Your task to perform on an android device: open app "ColorNote Notepad Notes" (install if not already installed) Image 0: 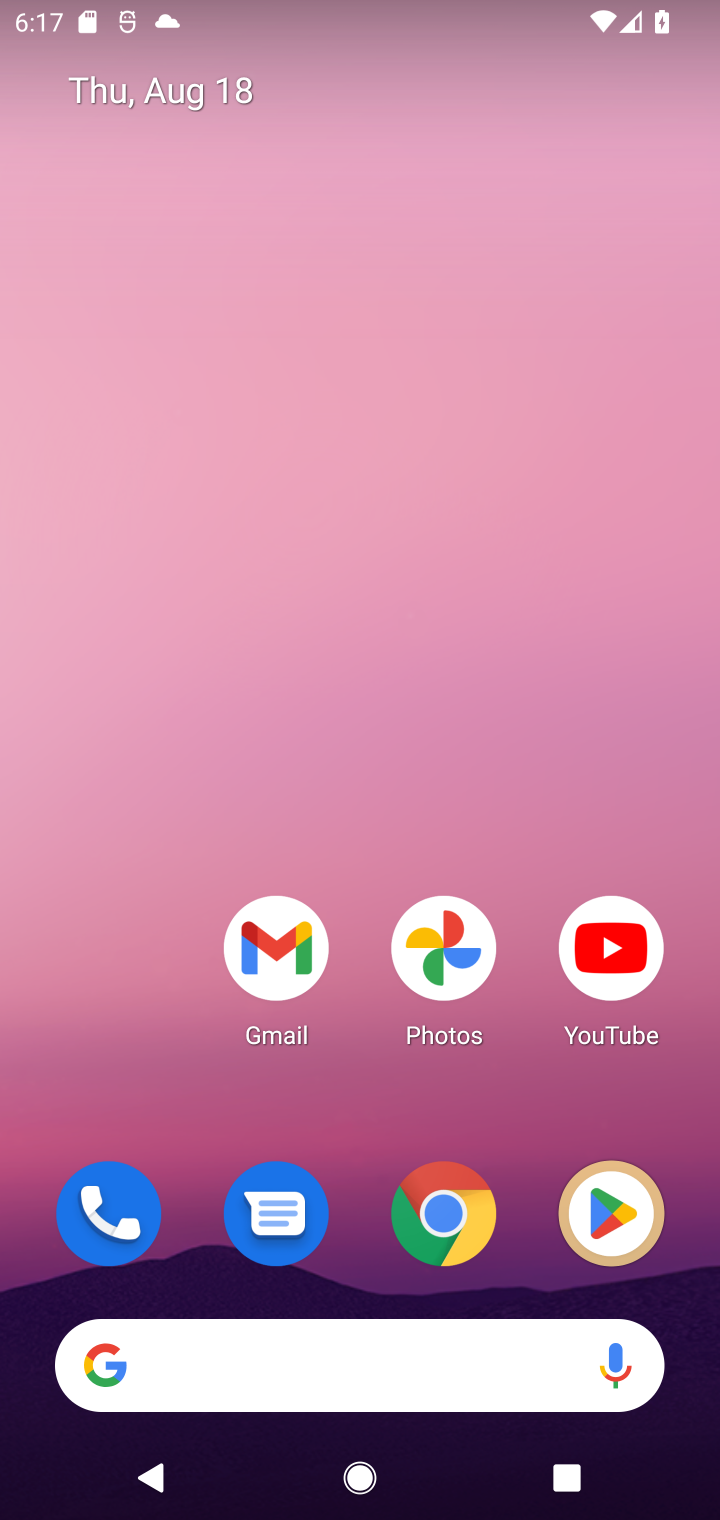
Step 0: press home button
Your task to perform on an android device: open app "ColorNote Notepad Notes" (install if not already installed) Image 1: 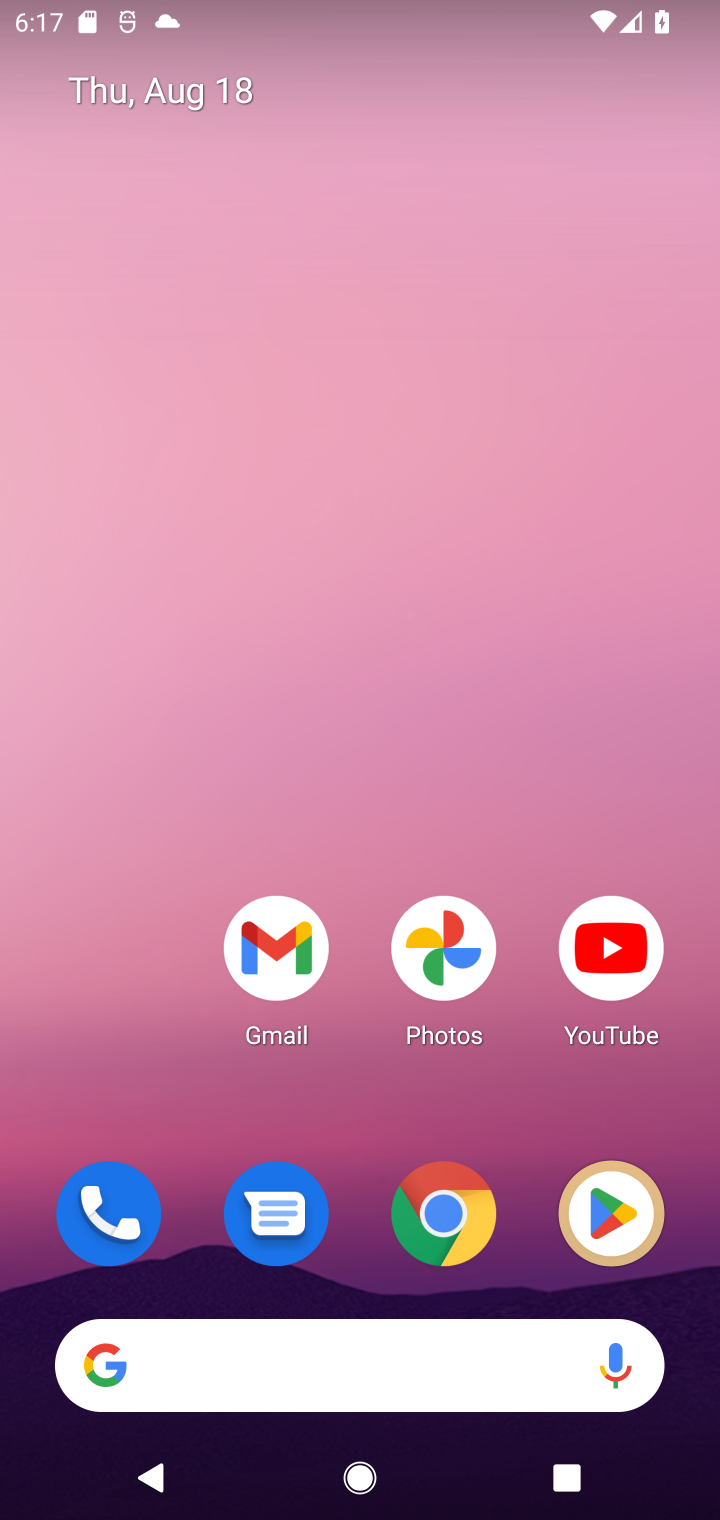
Step 1: press home button
Your task to perform on an android device: open app "ColorNote Notepad Notes" (install if not already installed) Image 2: 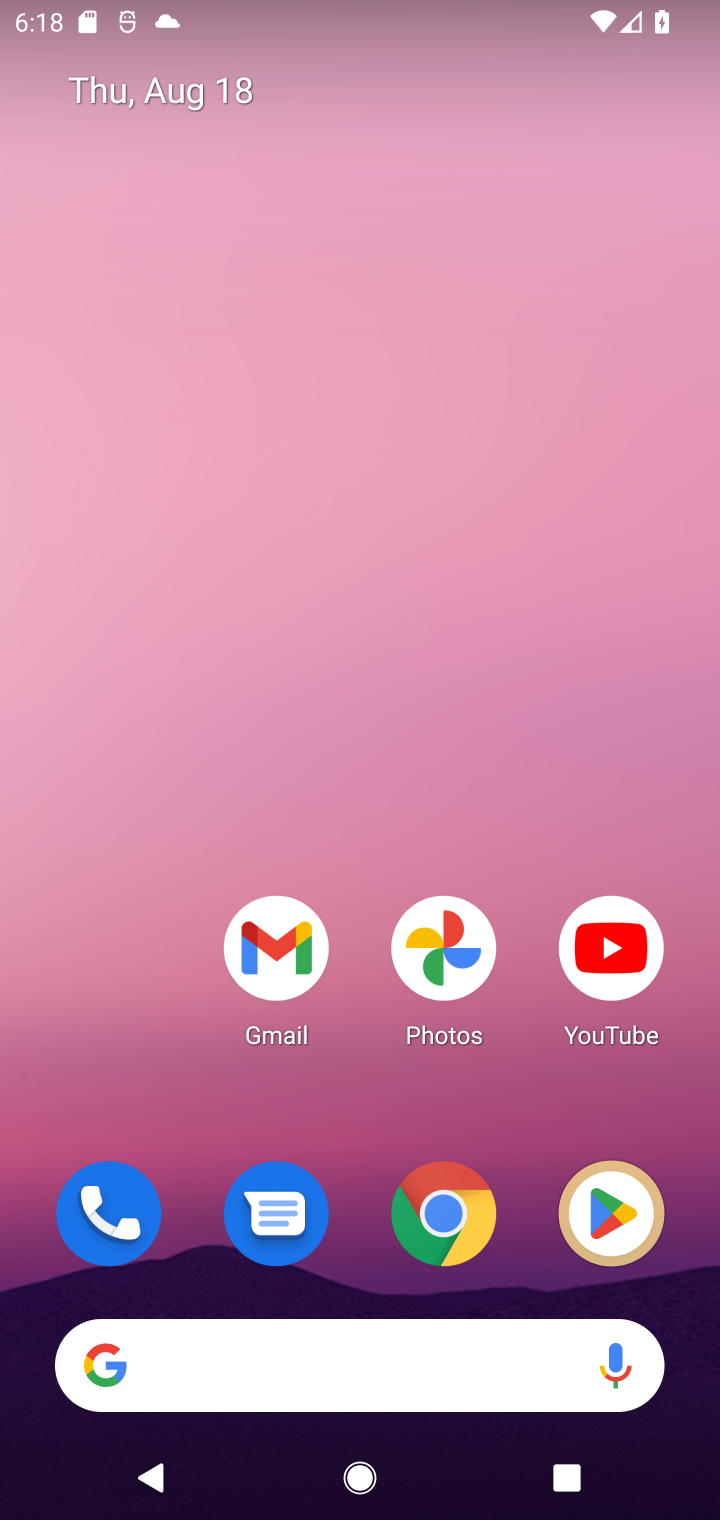
Step 2: click (603, 1202)
Your task to perform on an android device: open app "ColorNote Notepad Notes" (install if not already installed) Image 3: 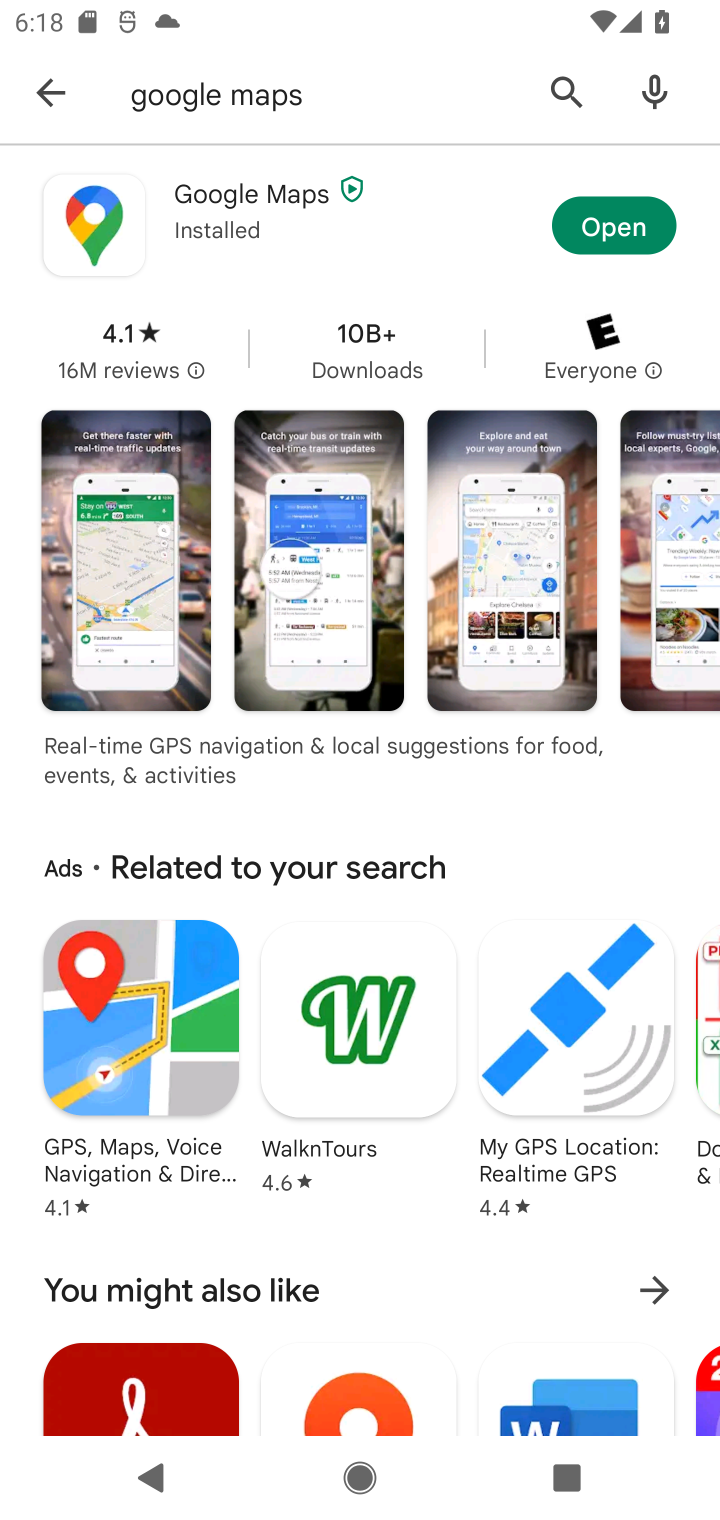
Step 3: click (533, 85)
Your task to perform on an android device: open app "ColorNote Notepad Notes" (install if not already installed) Image 4: 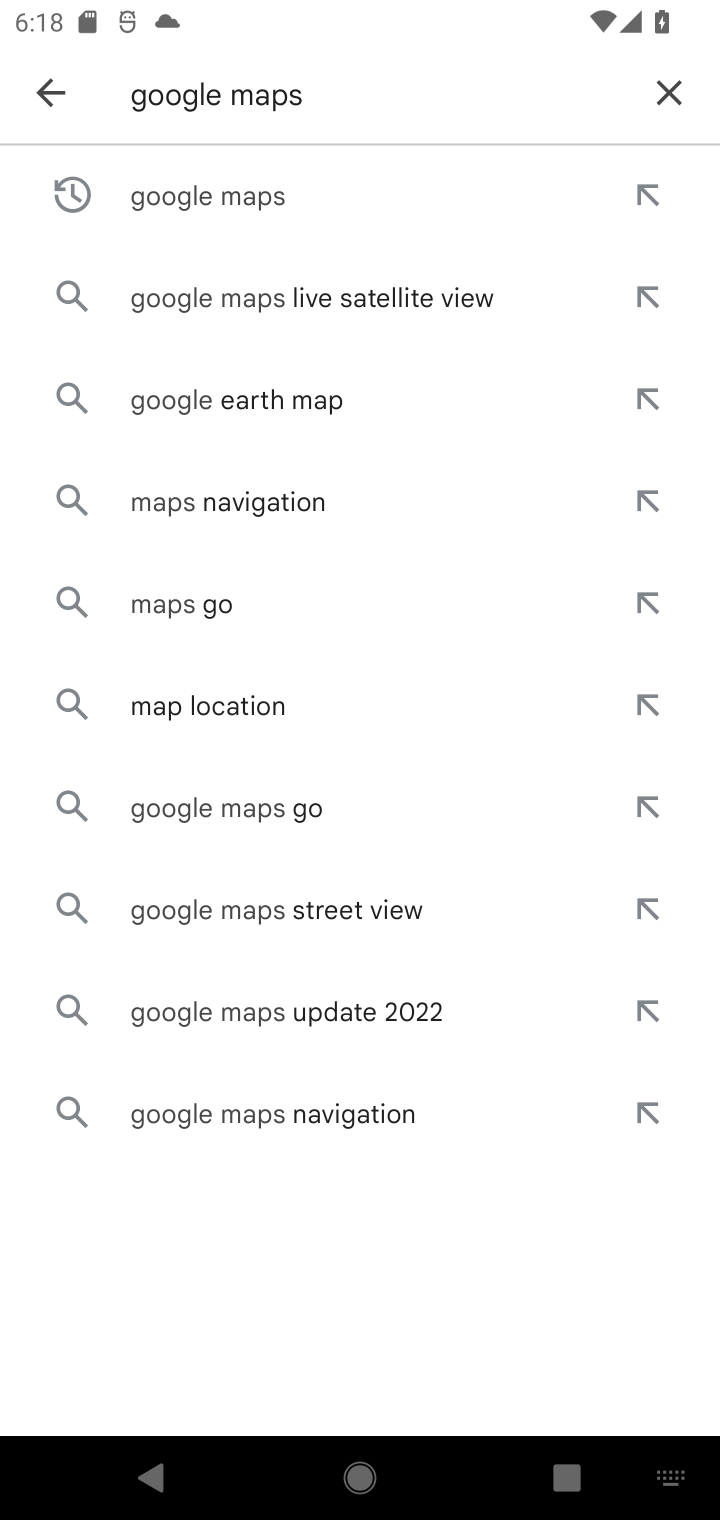
Step 4: click (660, 101)
Your task to perform on an android device: open app "ColorNote Notepad Notes" (install if not already installed) Image 5: 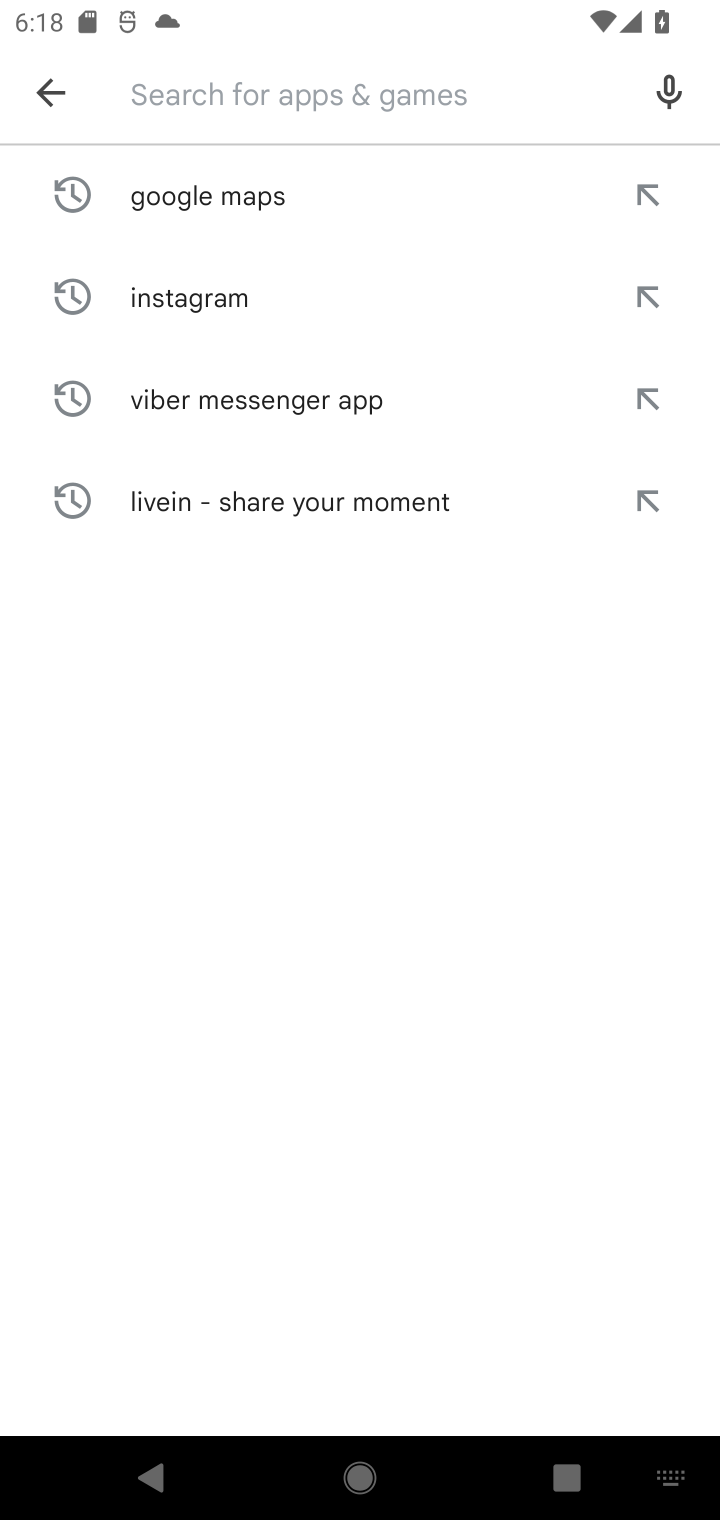
Step 5: type "ColorNote Notepad Notes"
Your task to perform on an android device: open app "ColorNote Notepad Notes" (install if not already installed) Image 6: 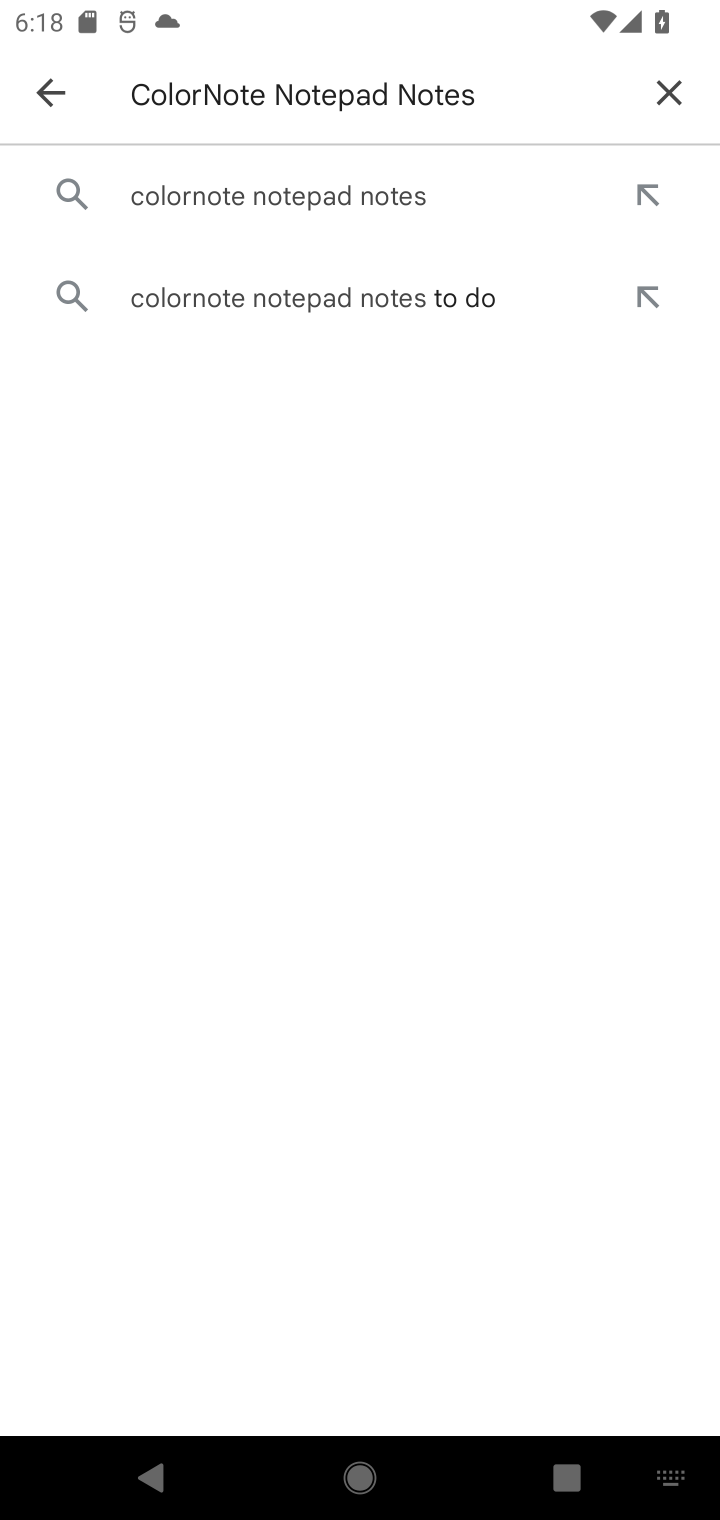
Step 6: click (415, 191)
Your task to perform on an android device: open app "ColorNote Notepad Notes" (install if not already installed) Image 7: 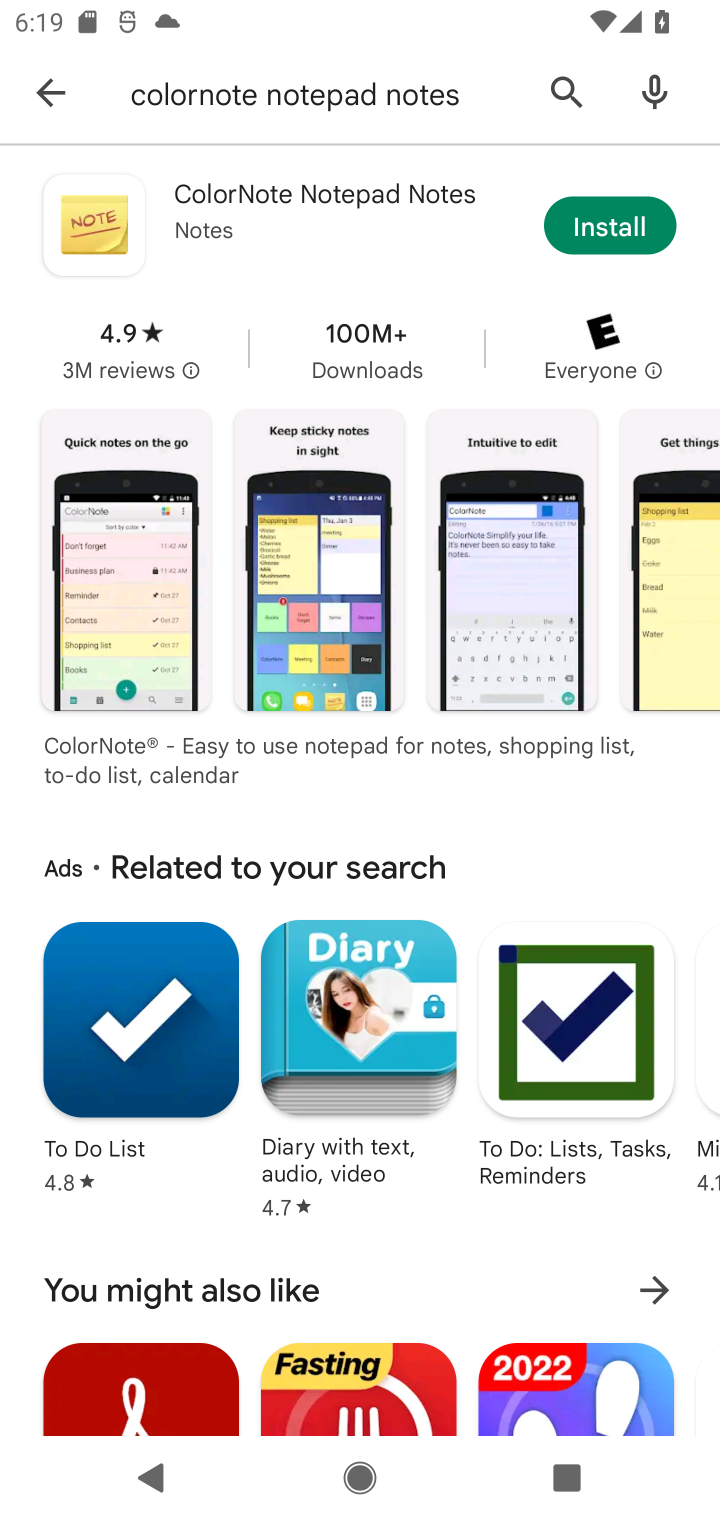
Step 7: click (600, 214)
Your task to perform on an android device: open app "ColorNote Notepad Notes" (install if not already installed) Image 8: 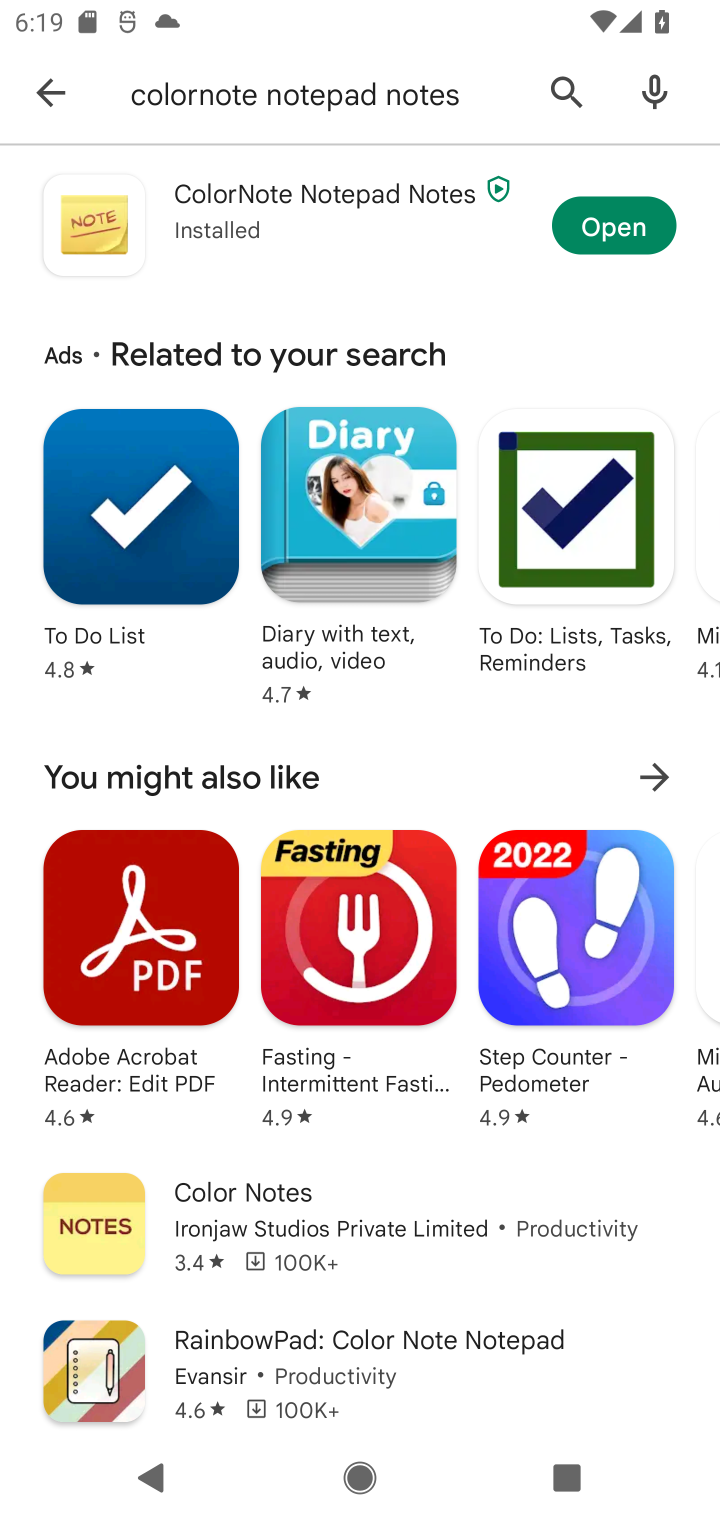
Step 8: click (607, 223)
Your task to perform on an android device: open app "ColorNote Notepad Notes" (install if not already installed) Image 9: 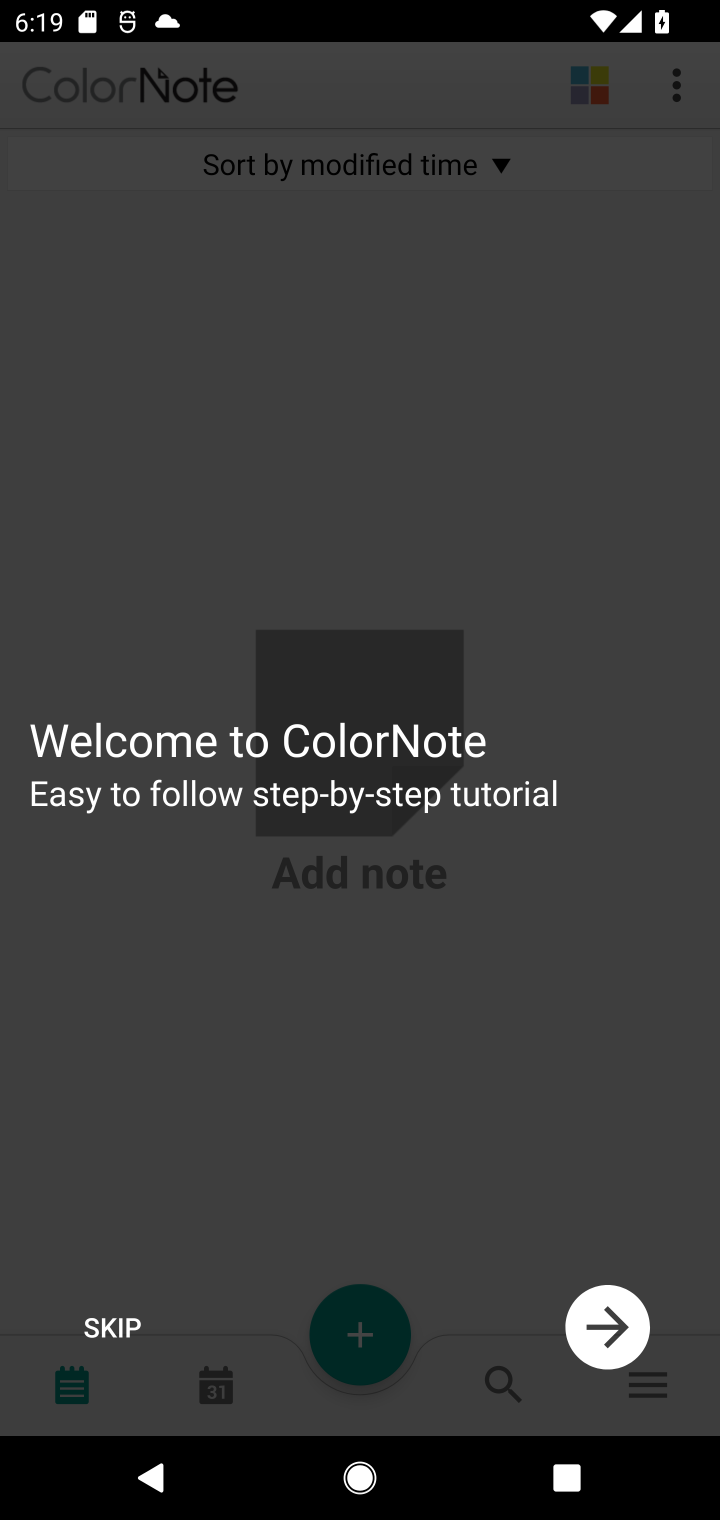
Step 9: click (617, 1323)
Your task to perform on an android device: open app "ColorNote Notepad Notes" (install if not already installed) Image 10: 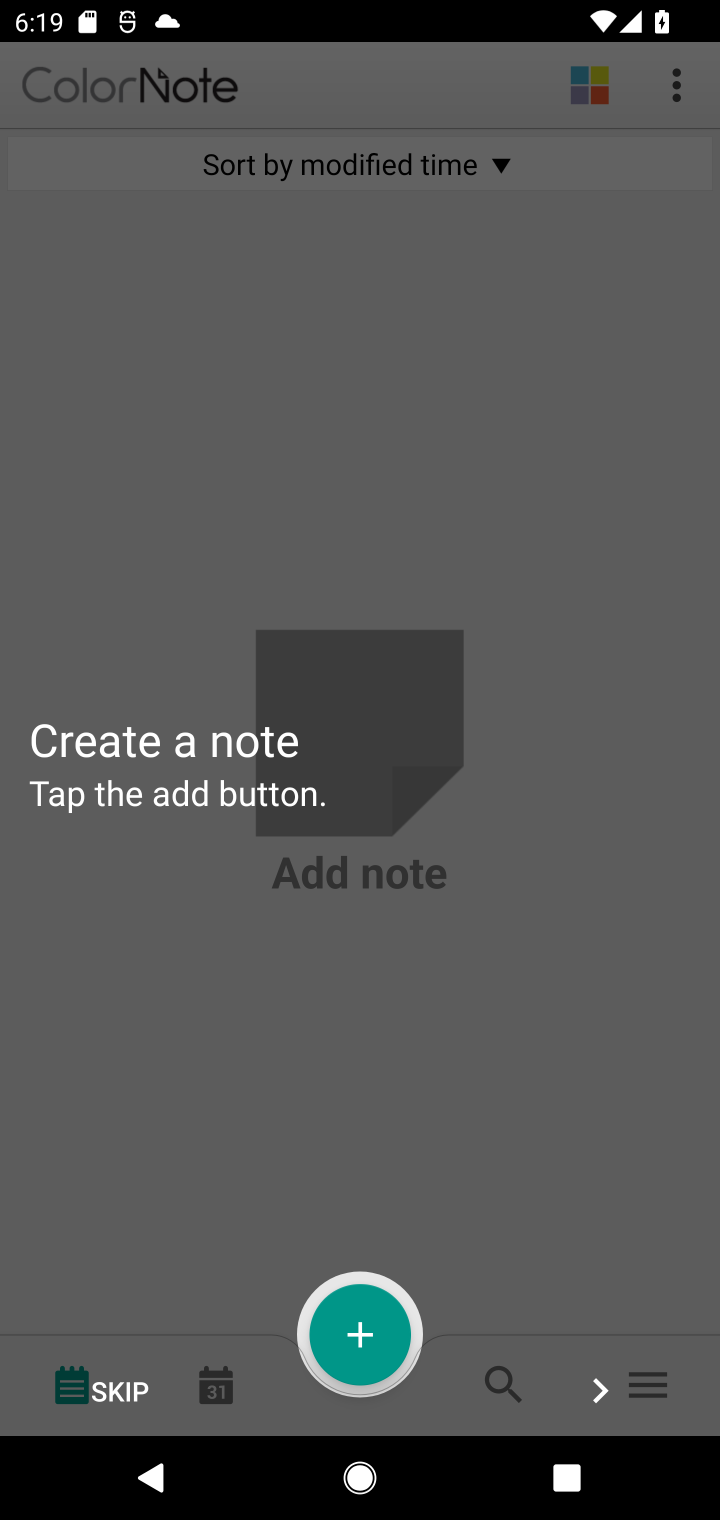
Step 10: task complete